Your task to perform on an android device: turn on the 24-hour format for clock Image 0: 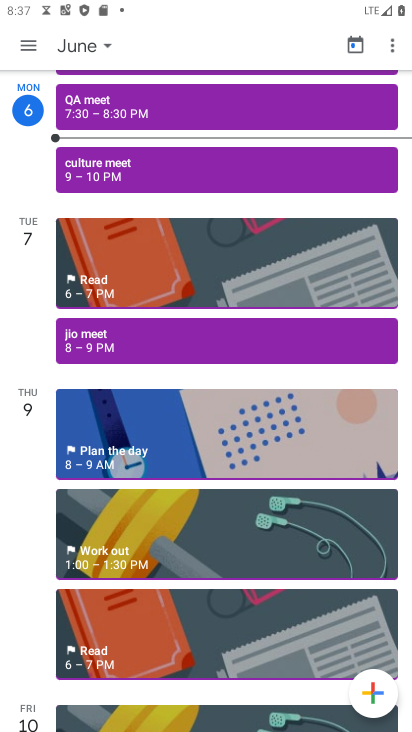
Step 0: press home button
Your task to perform on an android device: turn on the 24-hour format for clock Image 1: 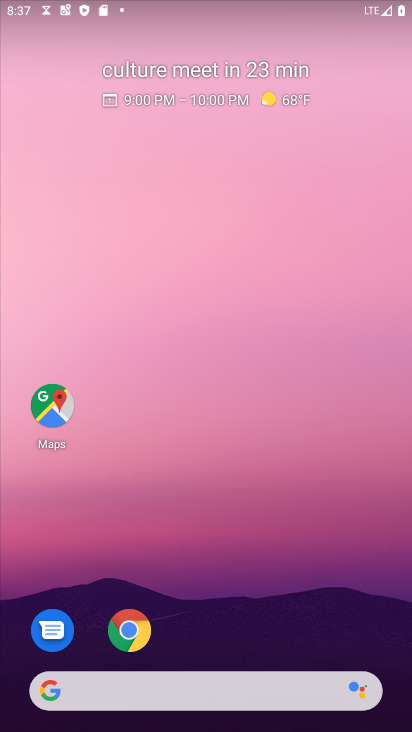
Step 1: drag from (246, 590) to (220, 17)
Your task to perform on an android device: turn on the 24-hour format for clock Image 2: 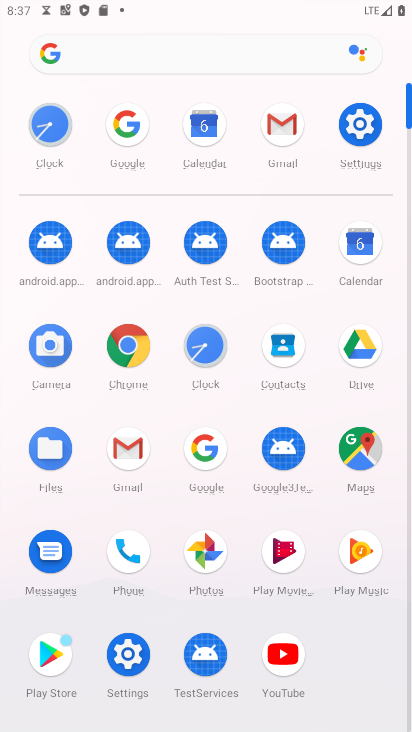
Step 2: click (52, 123)
Your task to perform on an android device: turn on the 24-hour format for clock Image 3: 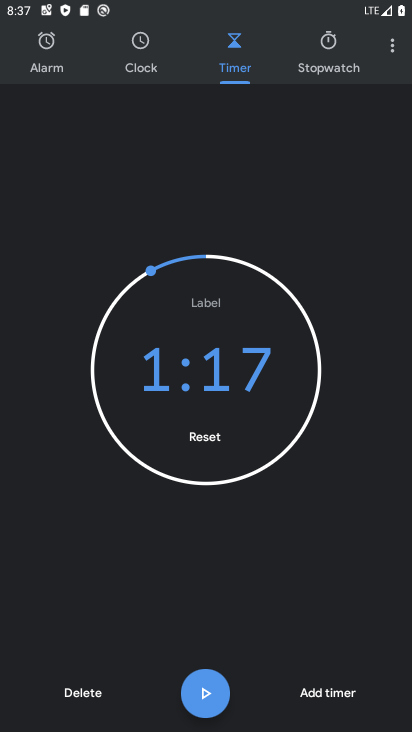
Step 3: click (394, 47)
Your task to perform on an android device: turn on the 24-hour format for clock Image 4: 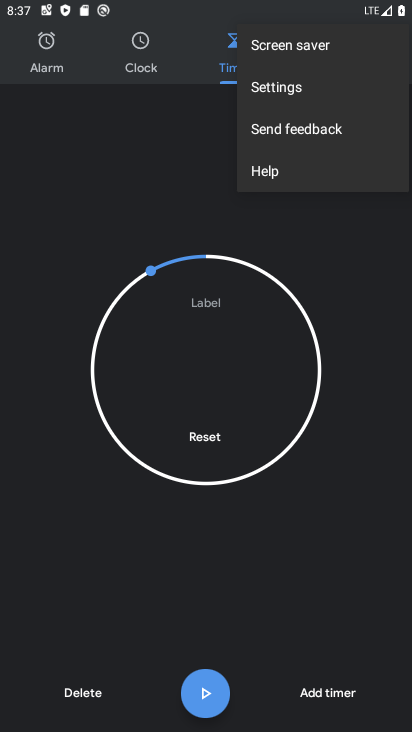
Step 4: click (300, 93)
Your task to perform on an android device: turn on the 24-hour format for clock Image 5: 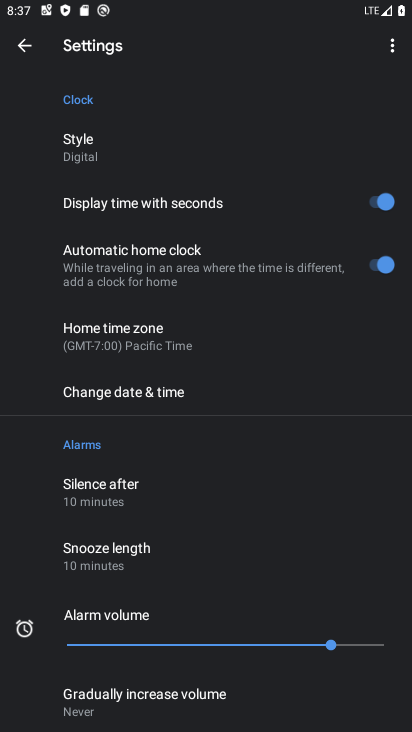
Step 5: drag from (204, 548) to (185, 344)
Your task to perform on an android device: turn on the 24-hour format for clock Image 6: 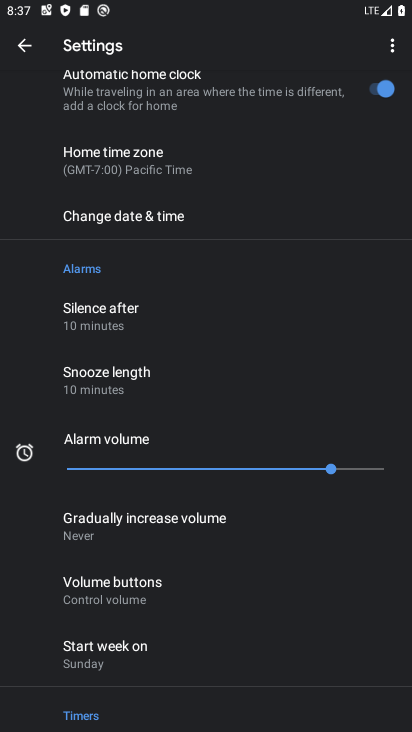
Step 6: drag from (191, 573) to (232, 352)
Your task to perform on an android device: turn on the 24-hour format for clock Image 7: 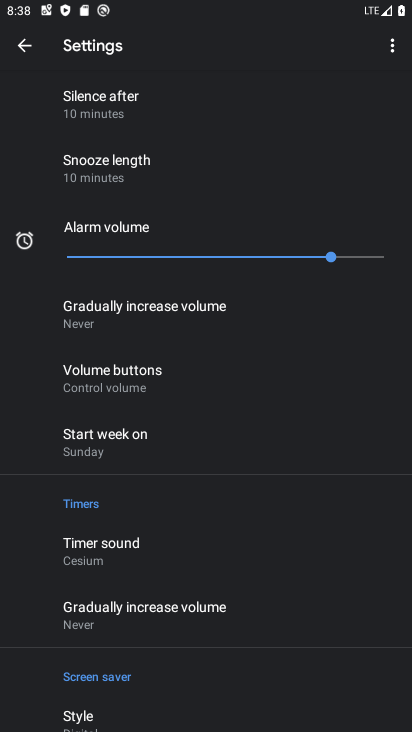
Step 7: drag from (199, 201) to (206, 400)
Your task to perform on an android device: turn on the 24-hour format for clock Image 8: 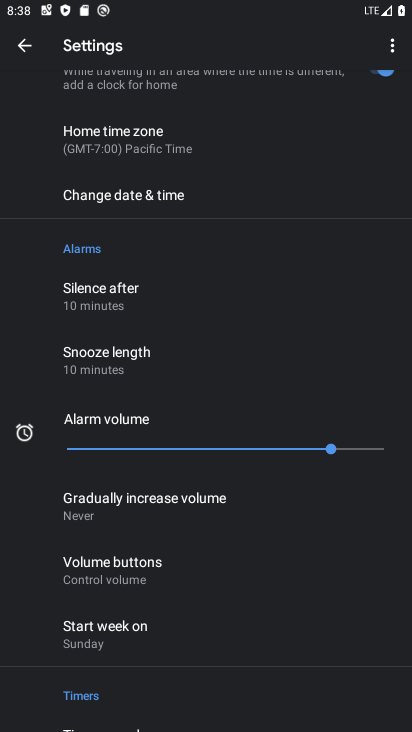
Step 8: click (119, 205)
Your task to perform on an android device: turn on the 24-hour format for clock Image 9: 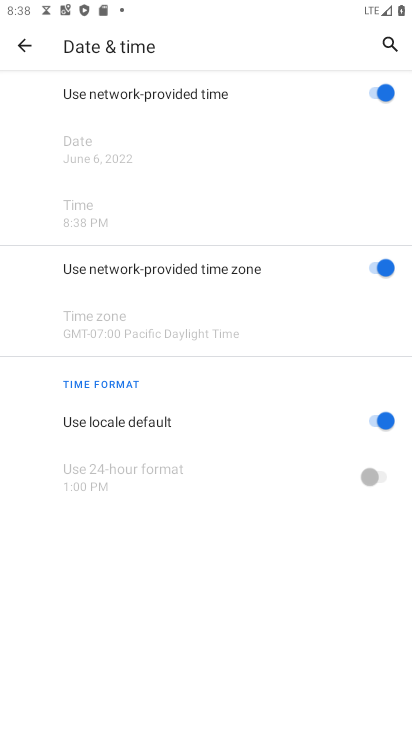
Step 9: click (377, 421)
Your task to perform on an android device: turn on the 24-hour format for clock Image 10: 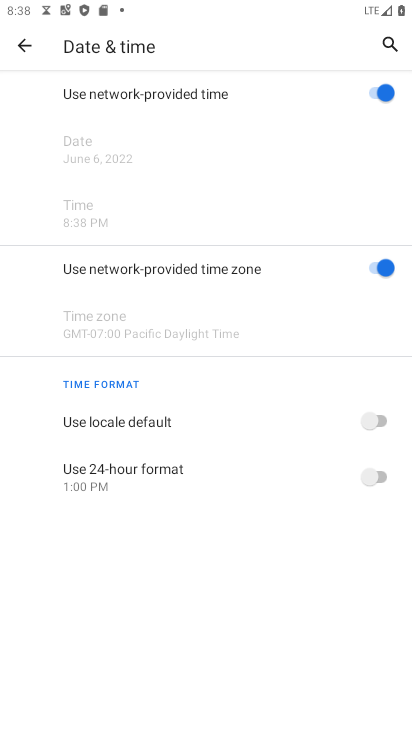
Step 10: click (378, 479)
Your task to perform on an android device: turn on the 24-hour format for clock Image 11: 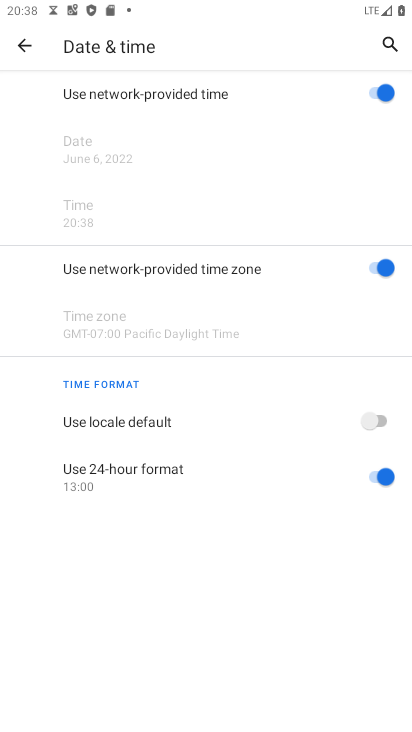
Step 11: task complete